Your task to perform on an android device: Search for usb-c to usb-a on costco.com, select the first entry, add it to the cart, then select checkout. Image 0: 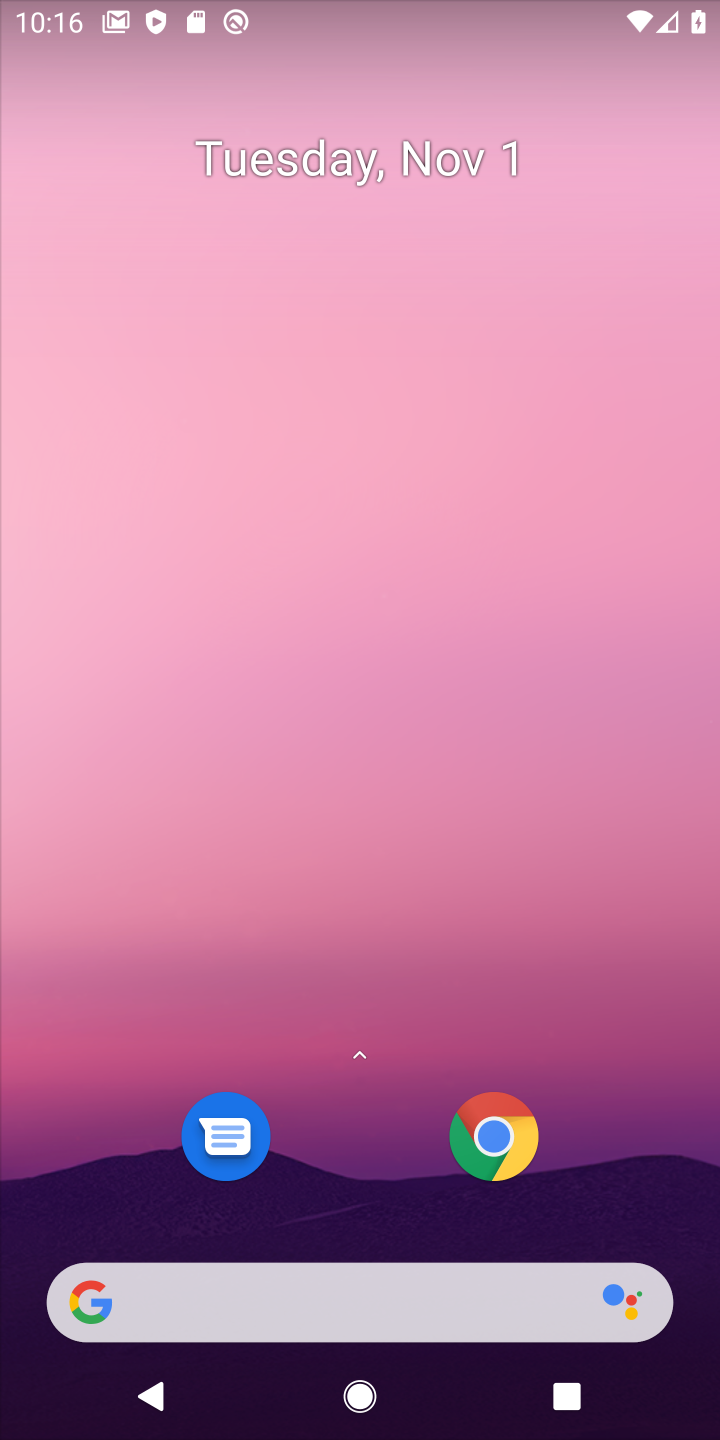
Step 0: drag from (502, 1375) to (255, 82)
Your task to perform on an android device: Search for usb-c to usb-a on costco.com, select the first entry, add it to the cart, then select checkout. Image 1: 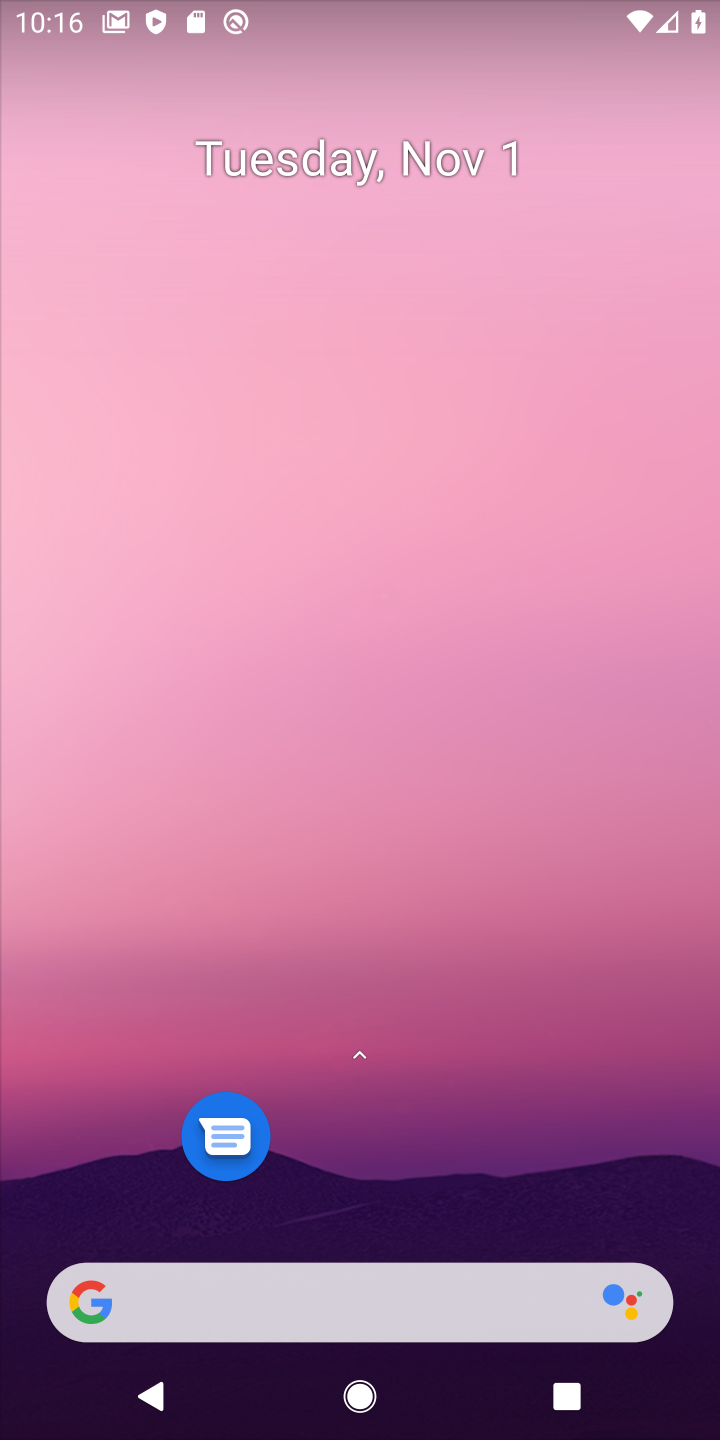
Step 1: drag from (482, 1362) to (547, 179)
Your task to perform on an android device: Search for usb-c to usb-a on costco.com, select the first entry, add it to the cart, then select checkout. Image 2: 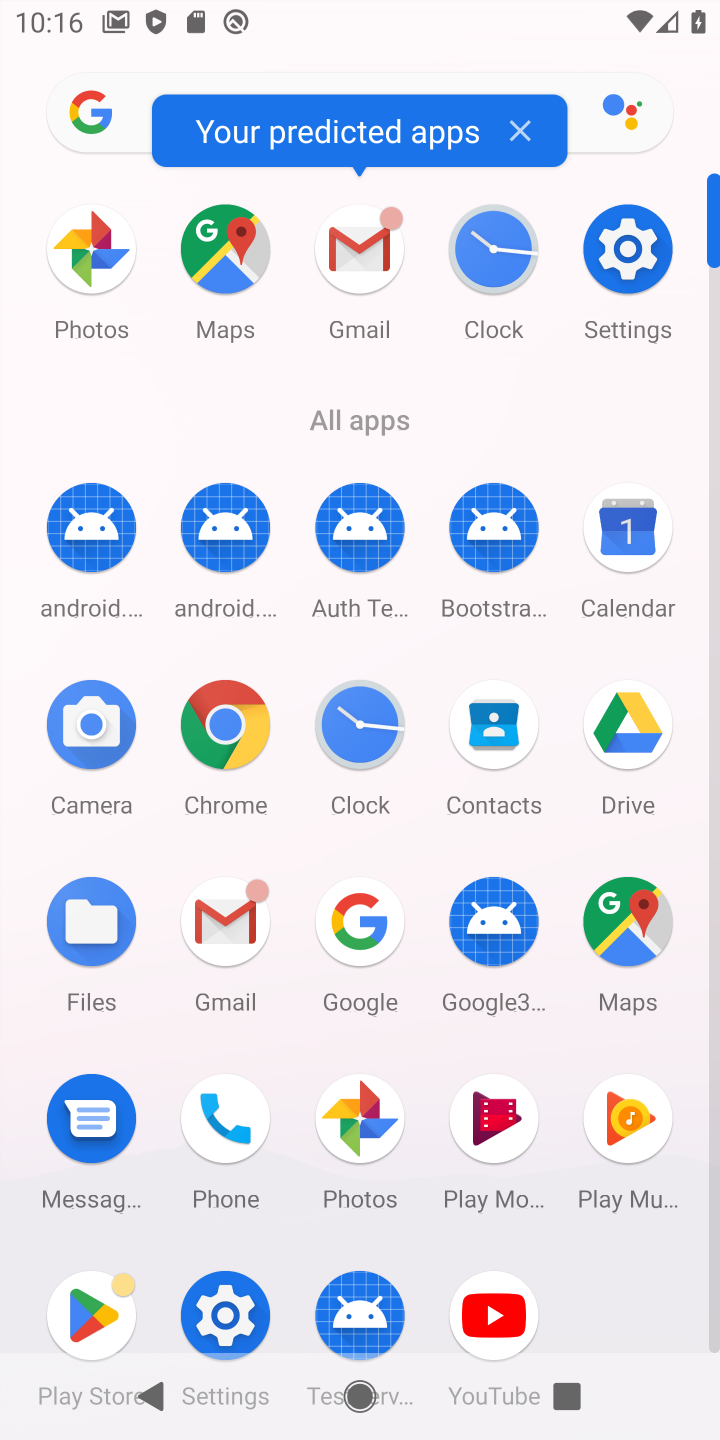
Step 2: click (239, 721)
Your task to perform on an android device: Search for usb-c to usb-a on costco.com, select the first entry, add it to the cart, then select checkout. Image 3: 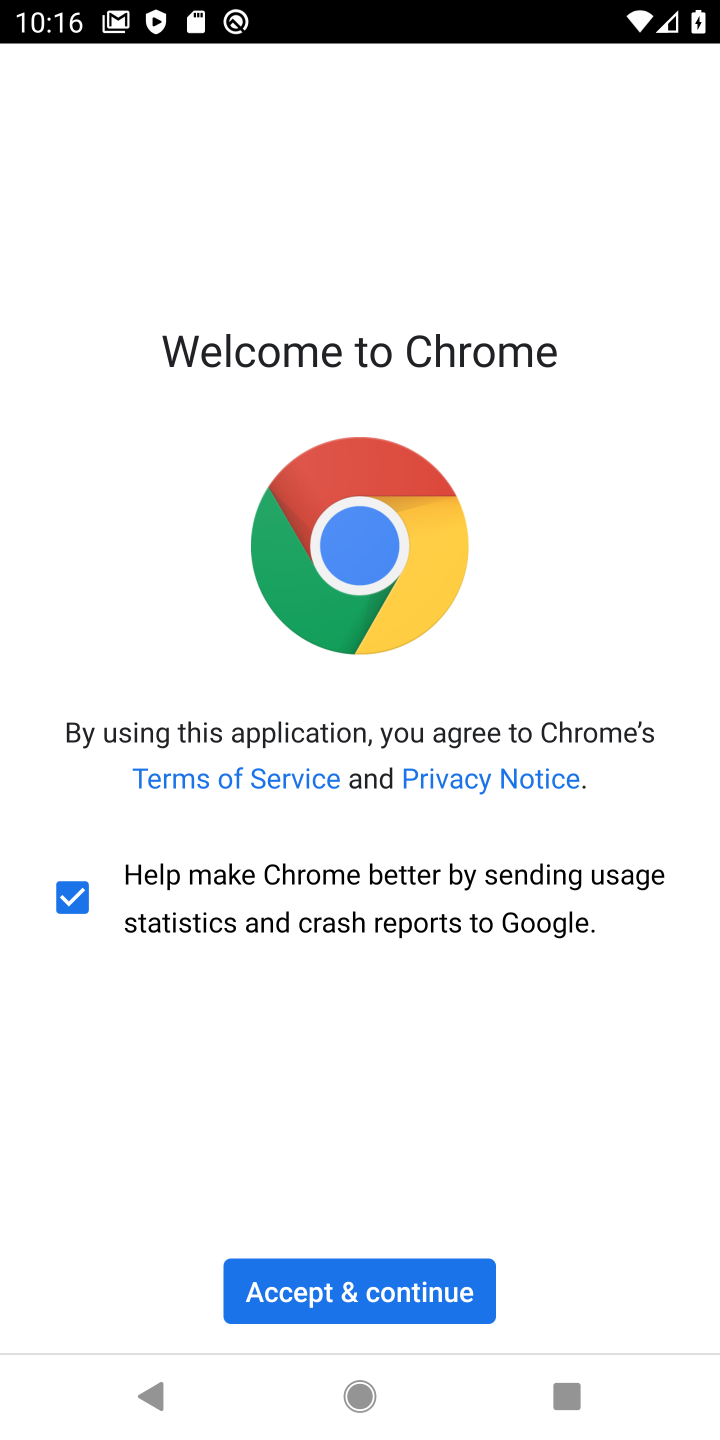
Step 3: click (397, 1296)
Your task to perform on an android device: Search for usb-c to usb-a on costco.com, select the first entry, add it to the cart, then select checkout. Image 4: 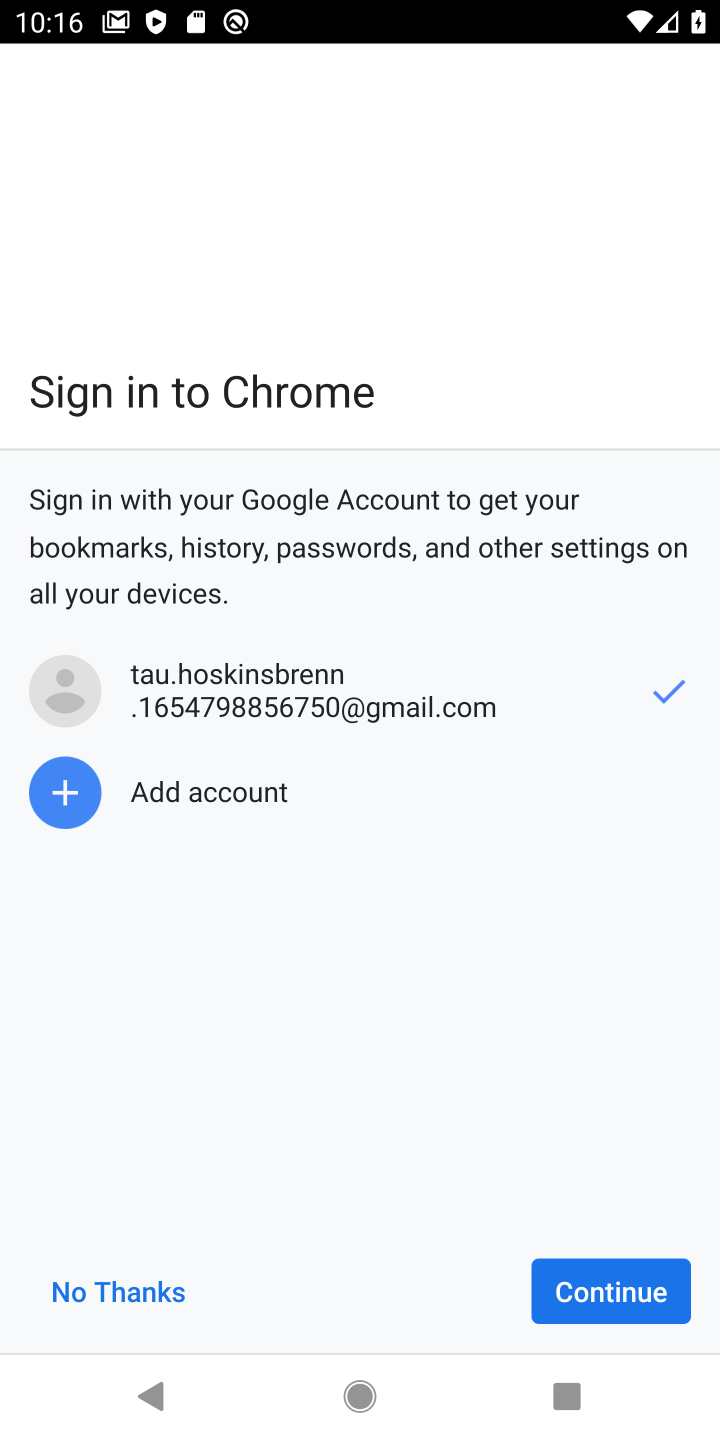
Step 4: click (598, 1298)
Your task to perform on an android device: Search for usb-c to usb-a on costco.com, select the first entry, add it to the cart, then select checkout. Image 5: 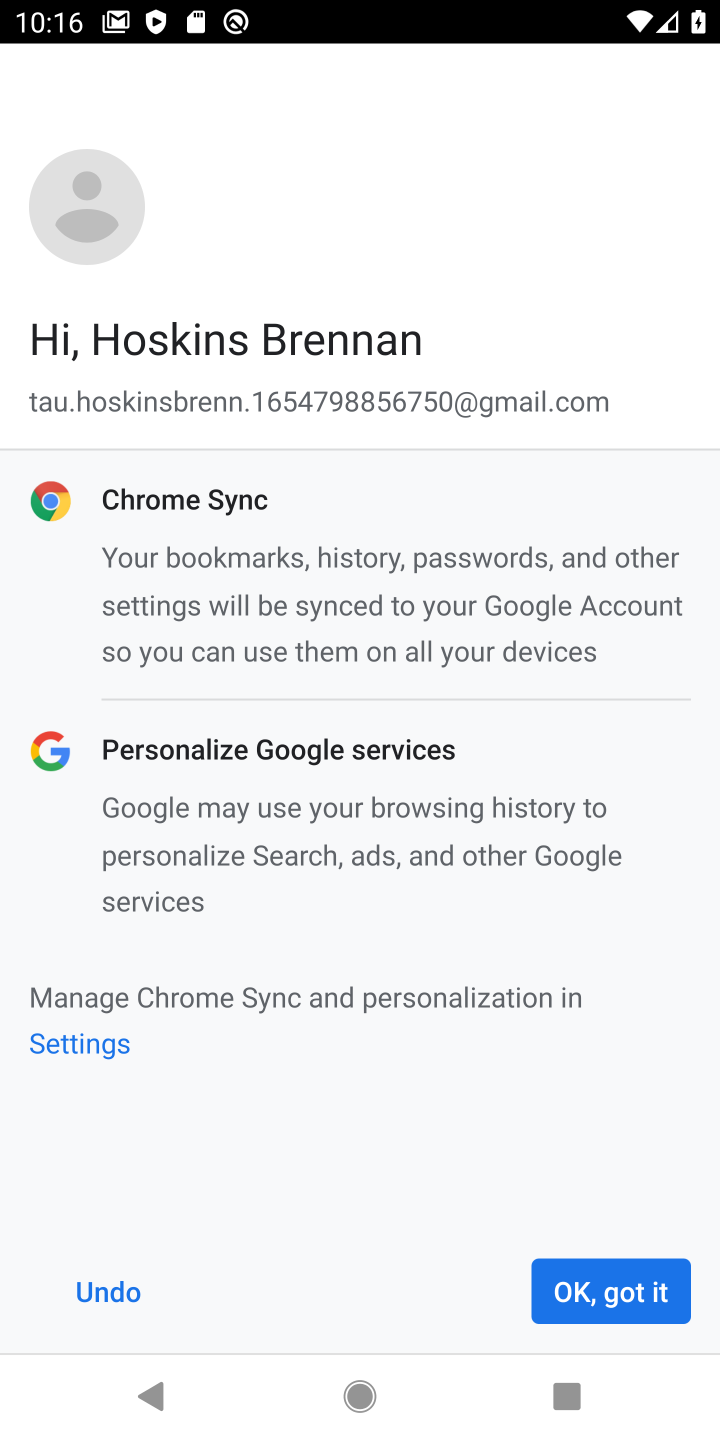
Step 5: click (603, 1295)
Your task to perform on an android device: Search for usb-c to usb-a on costco.com, select the first entry, add it to the cart, then select checkout. Image 6: 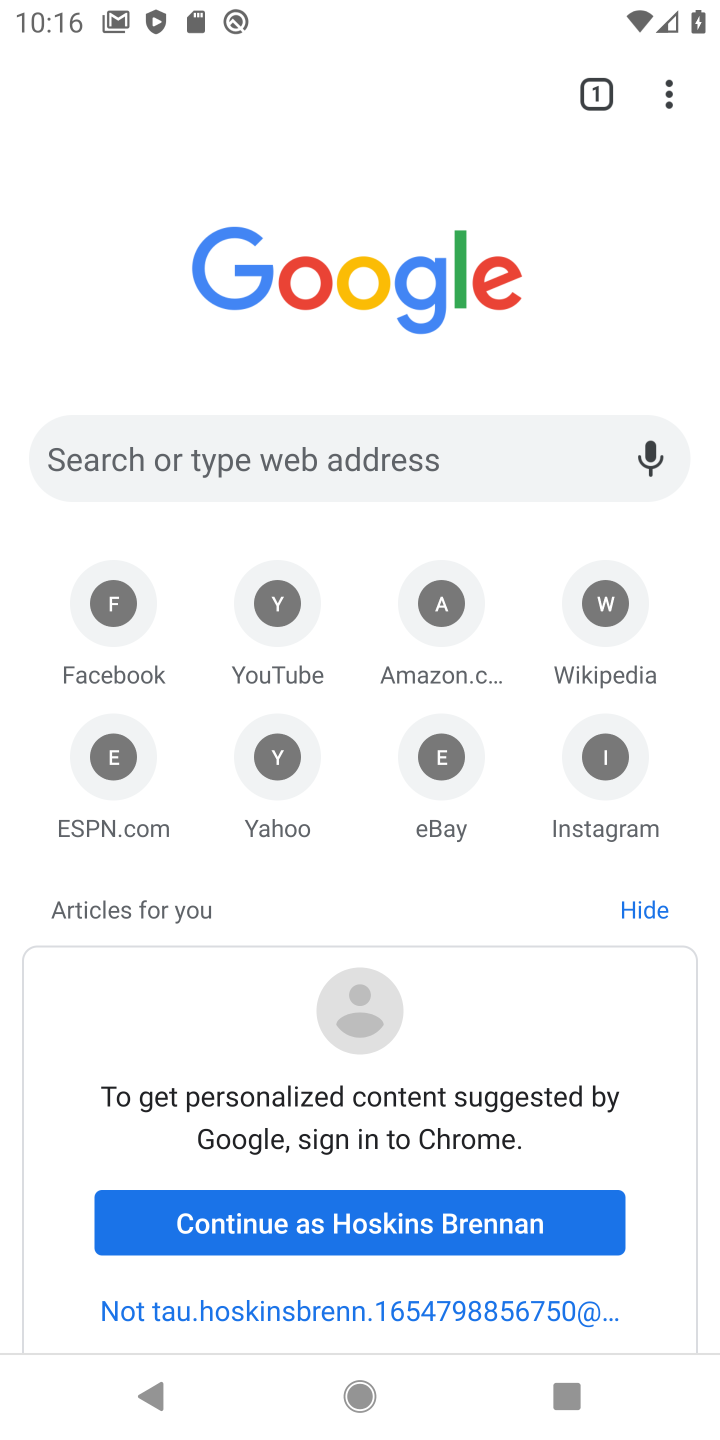
Step 6: click (265, 103)
Your task to perform on an android device: Search for usb-c to usb-a on costco.com, select the first entry, add it to the cart, then select checkout. Image 7: 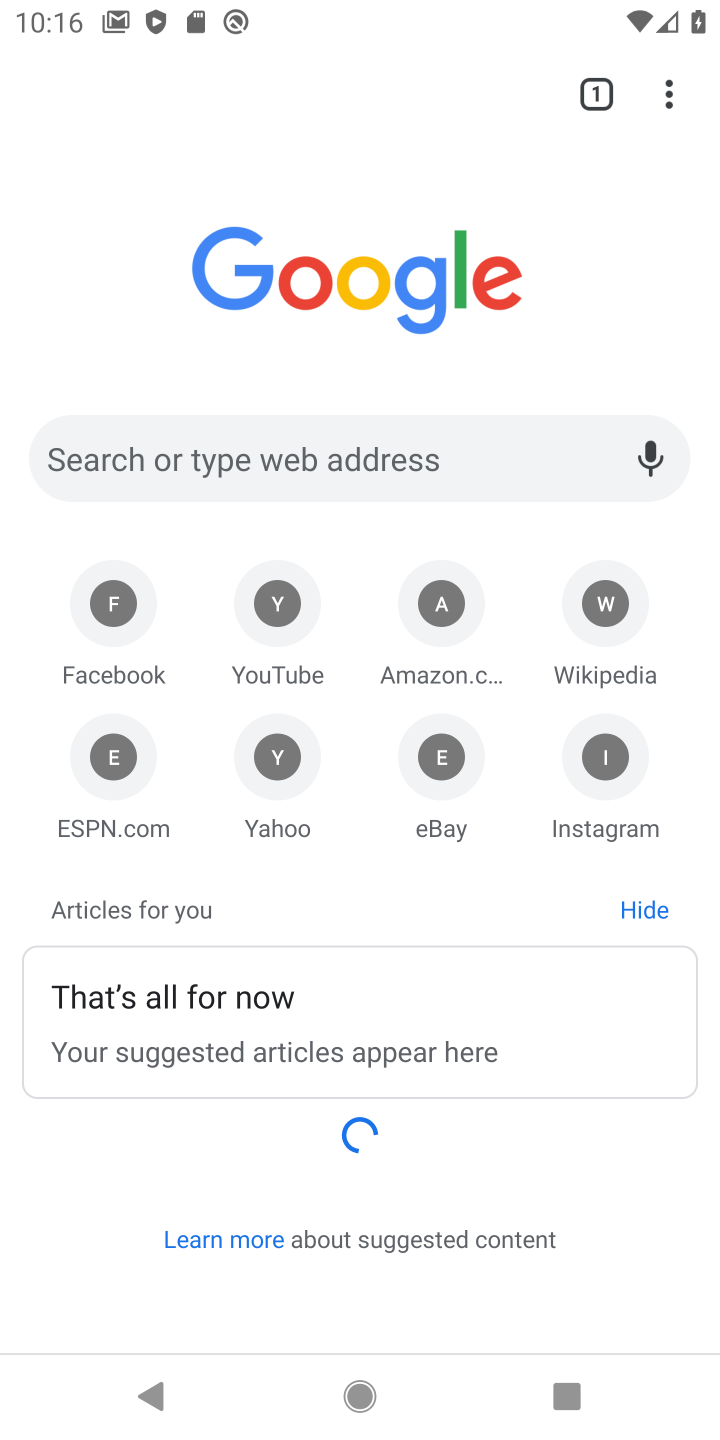
Step 7: click (337, 454)
Your task to perform on an android device: Search for usb-c to usb-a on costco.com, select the first entry, add it to the cart, then select checkout. Image 8: 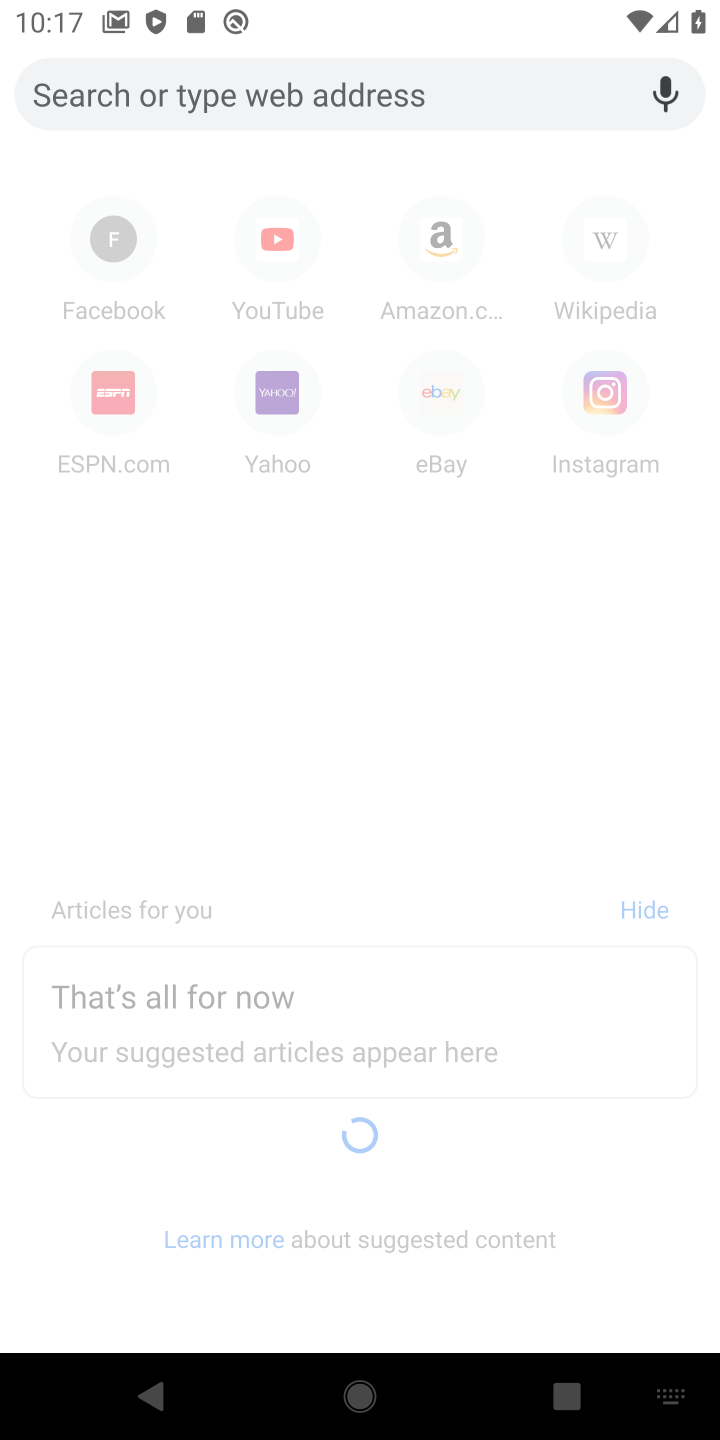
Step 8: click (81, 74)
Your task to perform on an android device: Search for usb-c to usb-a on costco.com, select the first entry, add it to the cart, then select checkout. Image 9: 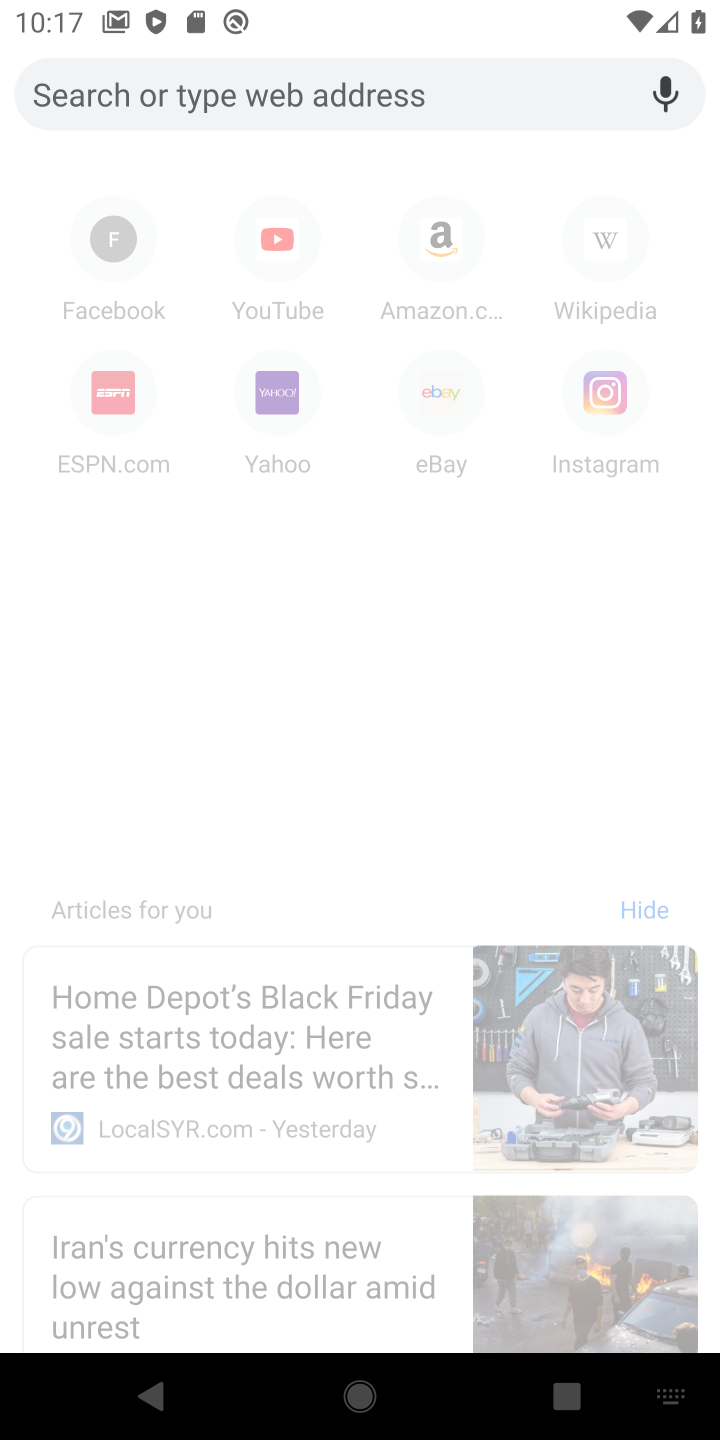
Step 9: type "costco.com"
Your task to perform on an android device: Search for usb-c to usb-a on costco.com, select the first entry, add it to the cart, then select checkout. Image 10: 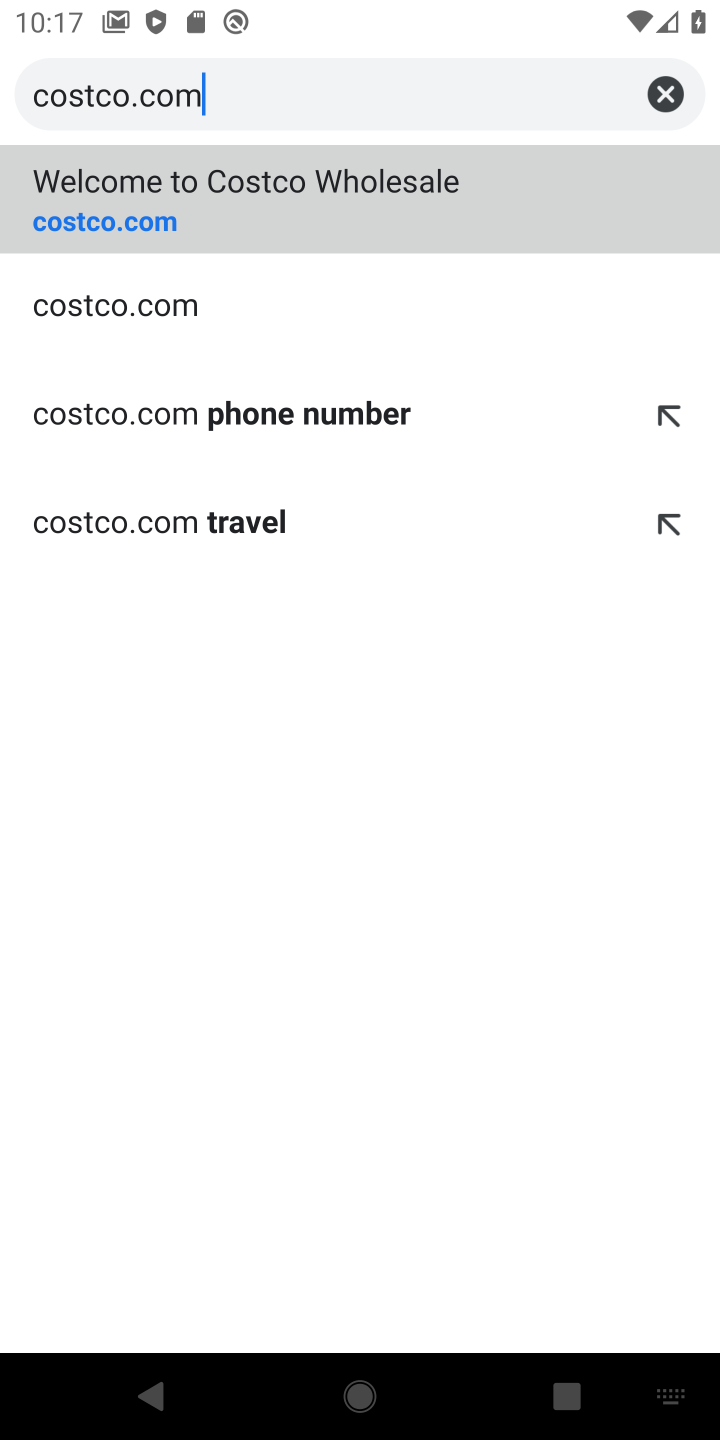
Step 10: click (102, 213)
Your task to perform on an android device: Search for usb-c to usb-a on costco.com, select the first entry, add it to the cart, then select checkout. Image 11: 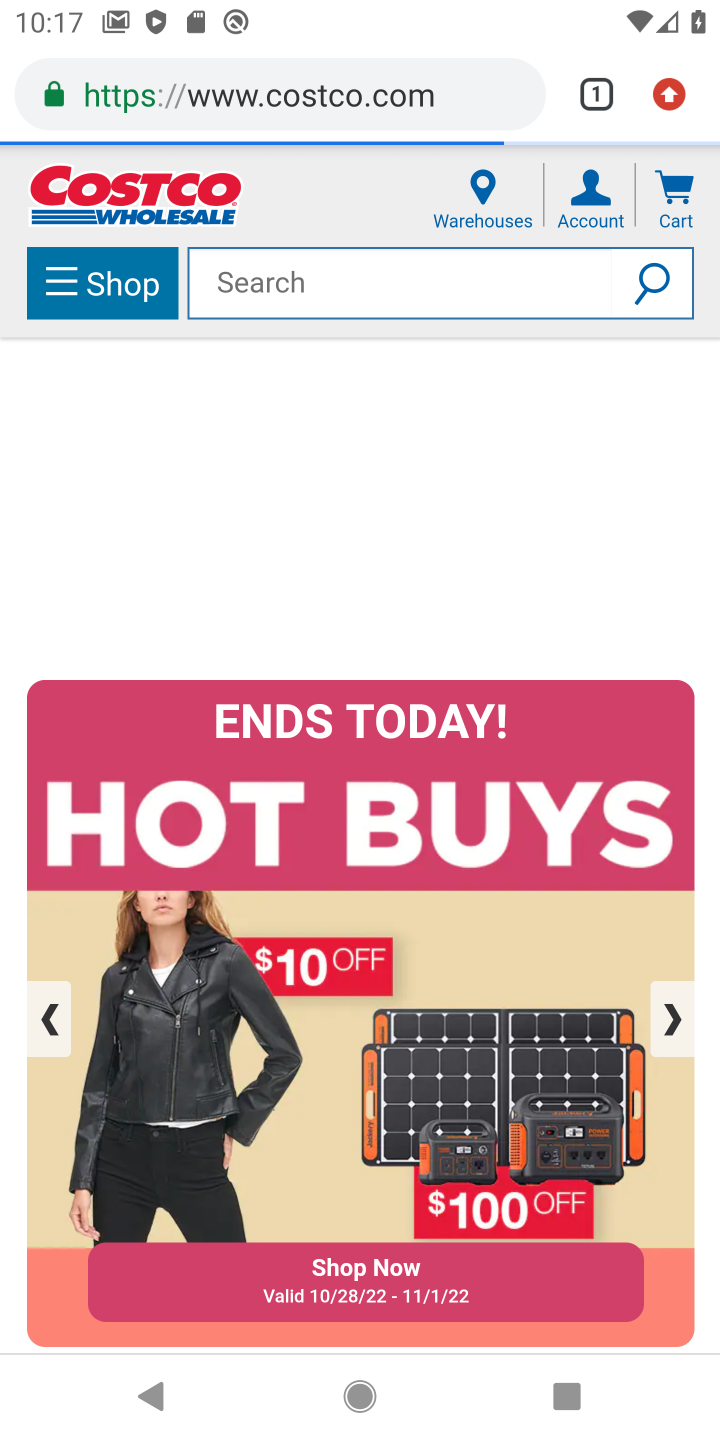
Step 11: click (332, 293)
Your task to perform on an android device: Search for usb-c to usb-a on costco.com, select the first entry, add it to the cart, then select checkout. Image 12: 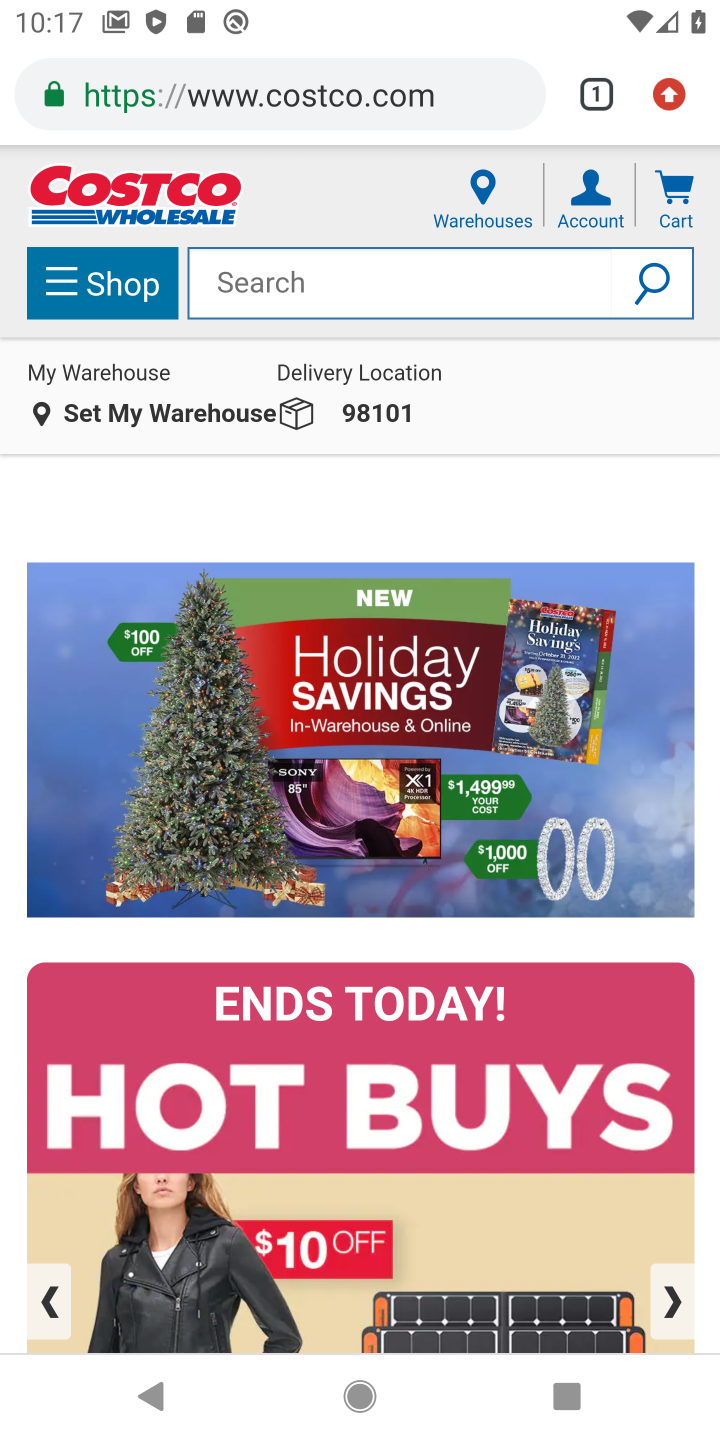
Step 12: click (262, 280)
Your task to perform on an android device: Search for usb-c to usb-a on costco.com, select the first entry, add it to the cart, then select checkout. Image 13: 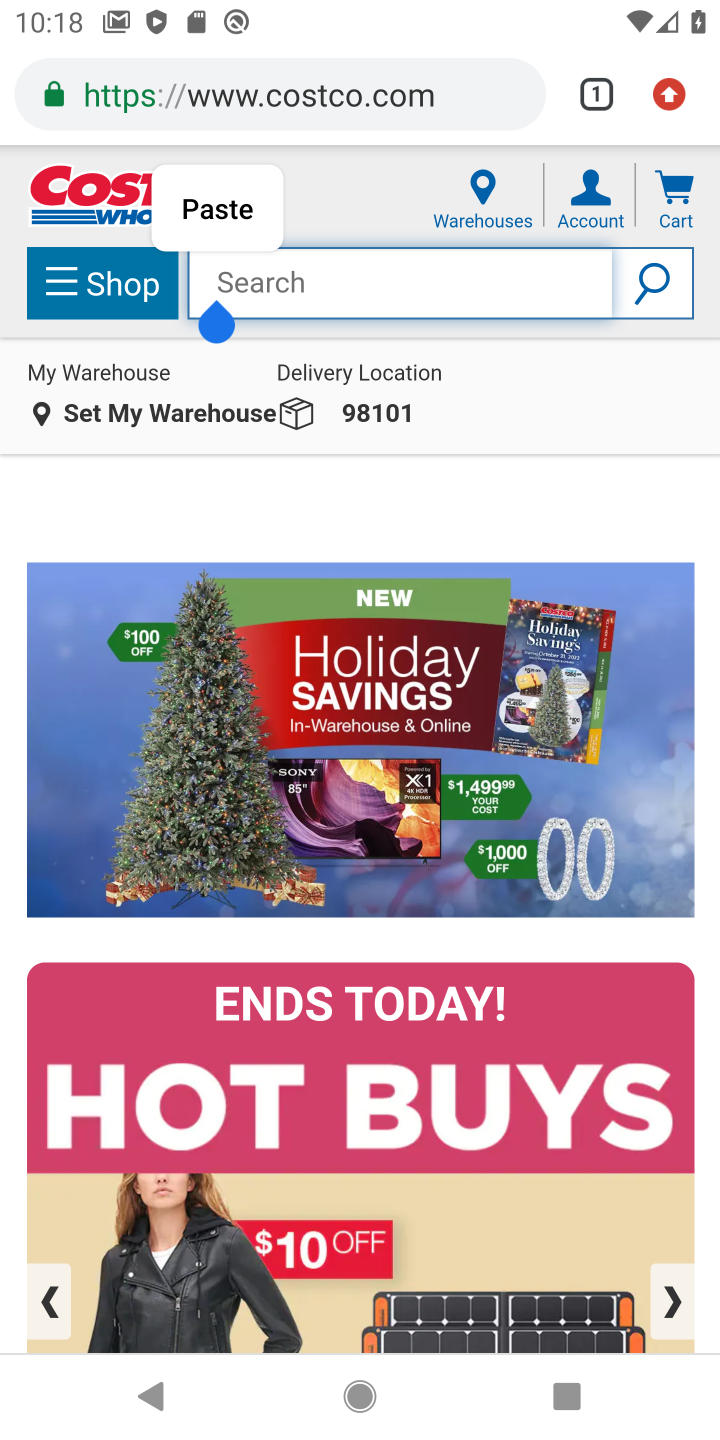
Step 13: type " usb-c to usb-a"
Your task to perform on an android device: Search for usb-c to usb-a on costco.com, select the first entry, add it to the cart, then select checkout. Image 14: 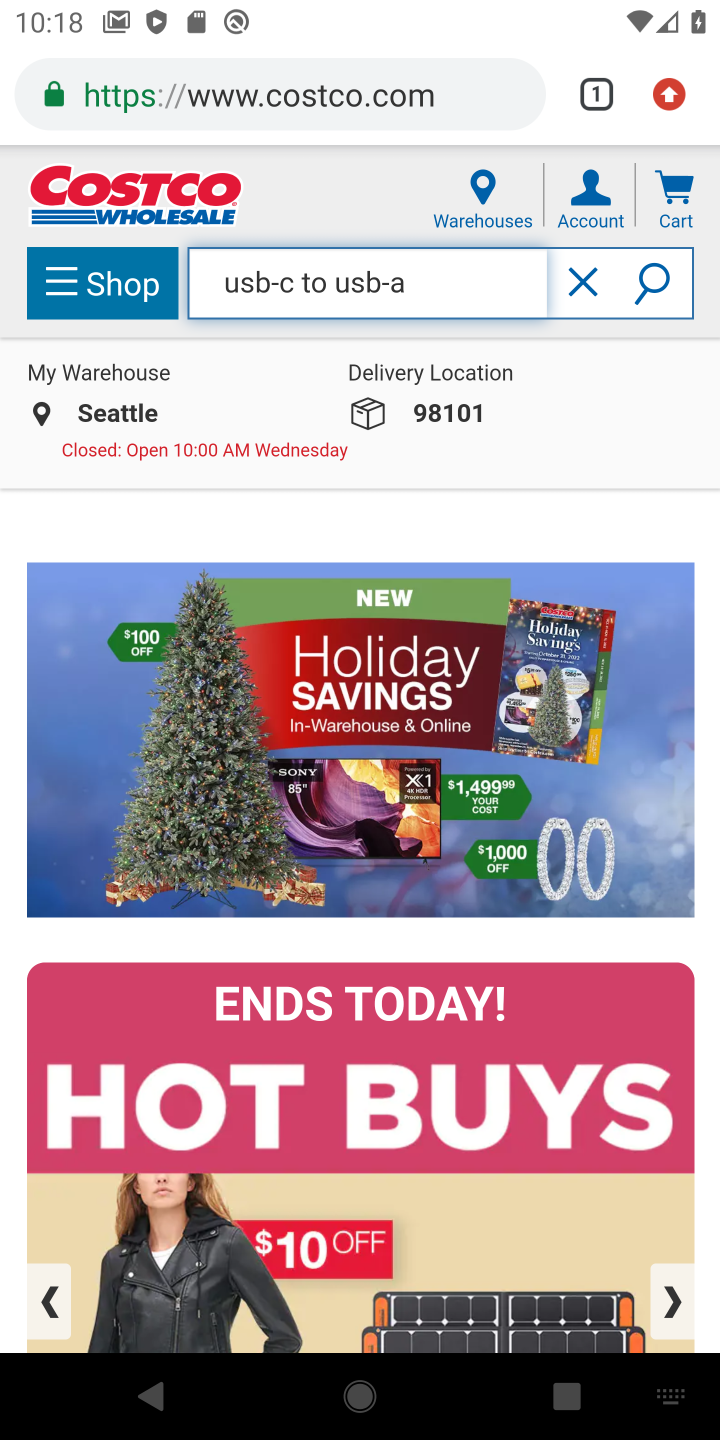
Step 14: click (639, 288)
Your task to perform on an android device: Search for usb-c to usb-a on costco.com, select the first entry, add it to the cart, then select checkout. Image 15: 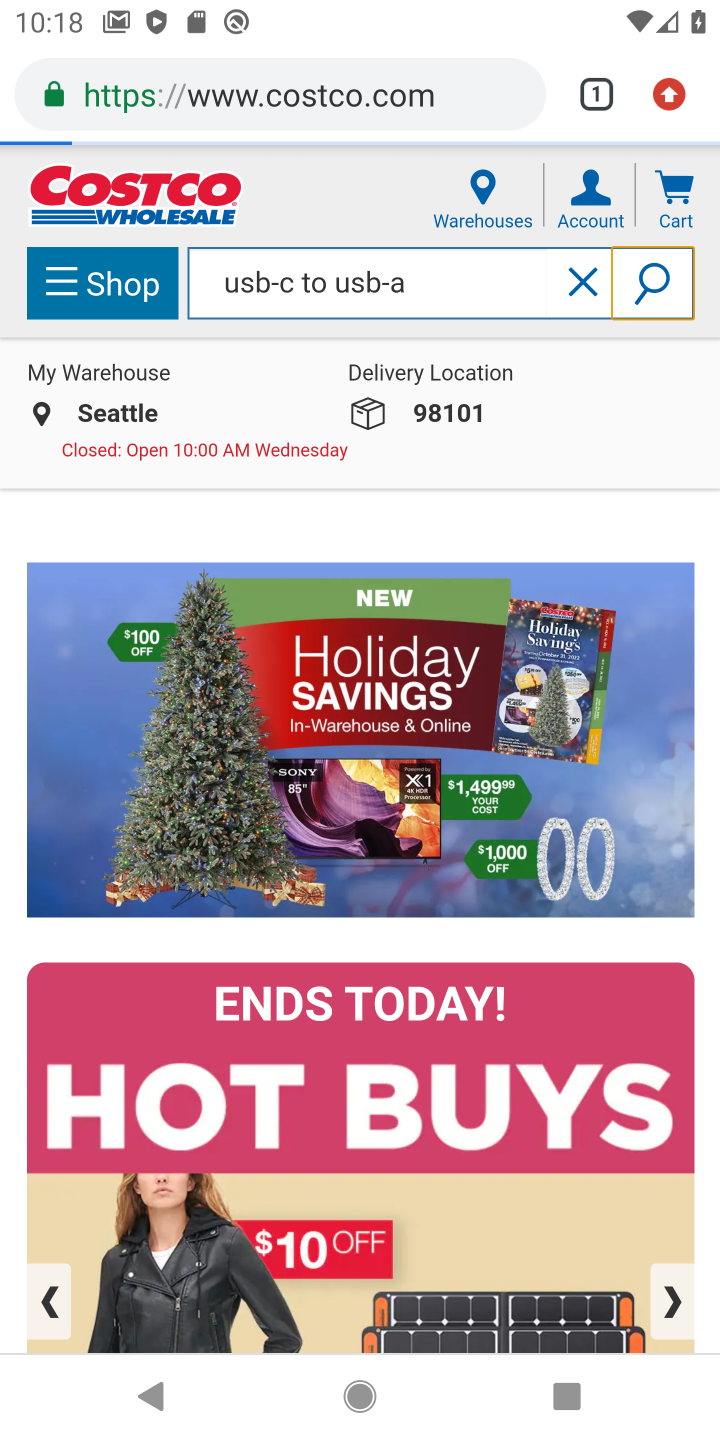
Step 15: click (658, 273)
Your task to perform on an android device: Search for usb-c to usb-a on costco.com, select the first entry, add it to the cart, then select checkout. Image 16: 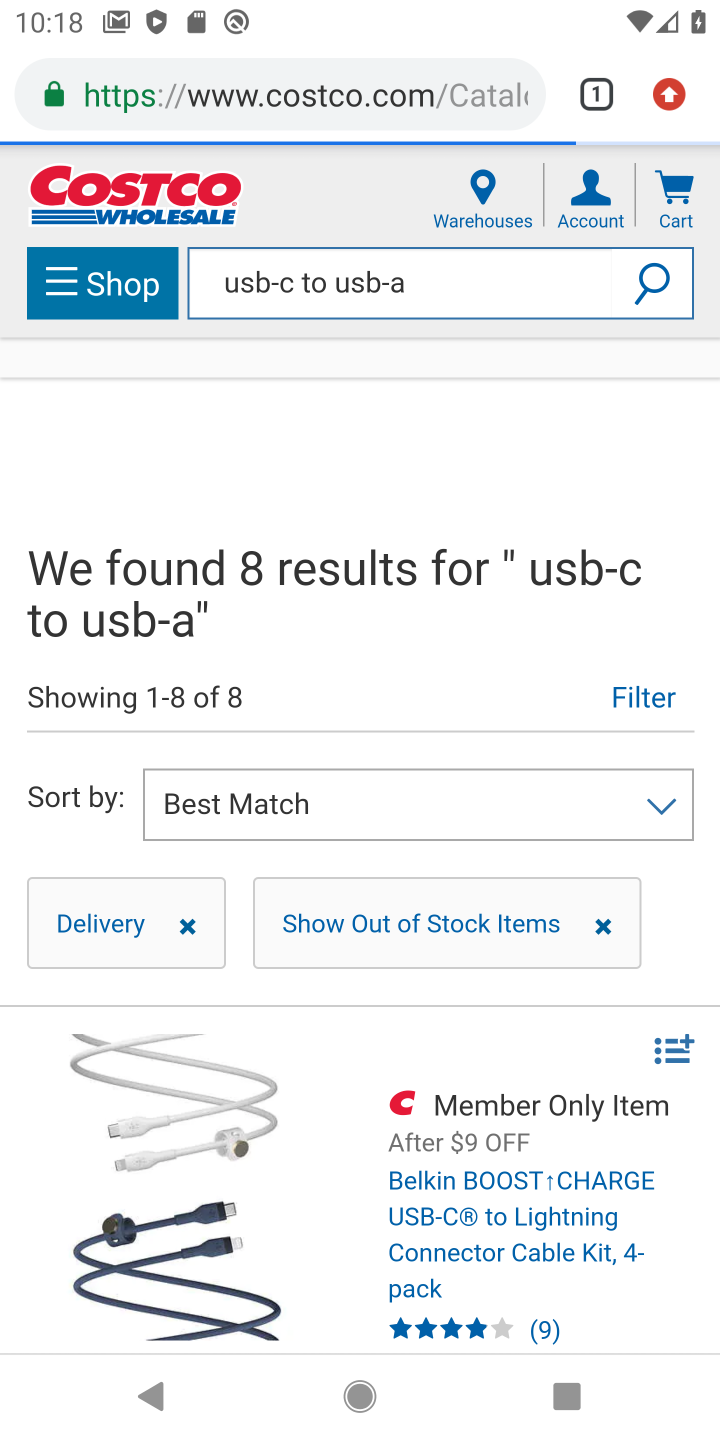
Step 16: drag from (408, 798) to (443, 450)
Your task to perform on an android device: Search for usb-c to usb-a on costco.com, select the first entry, add it to the cart, then select checkout. Image 17: 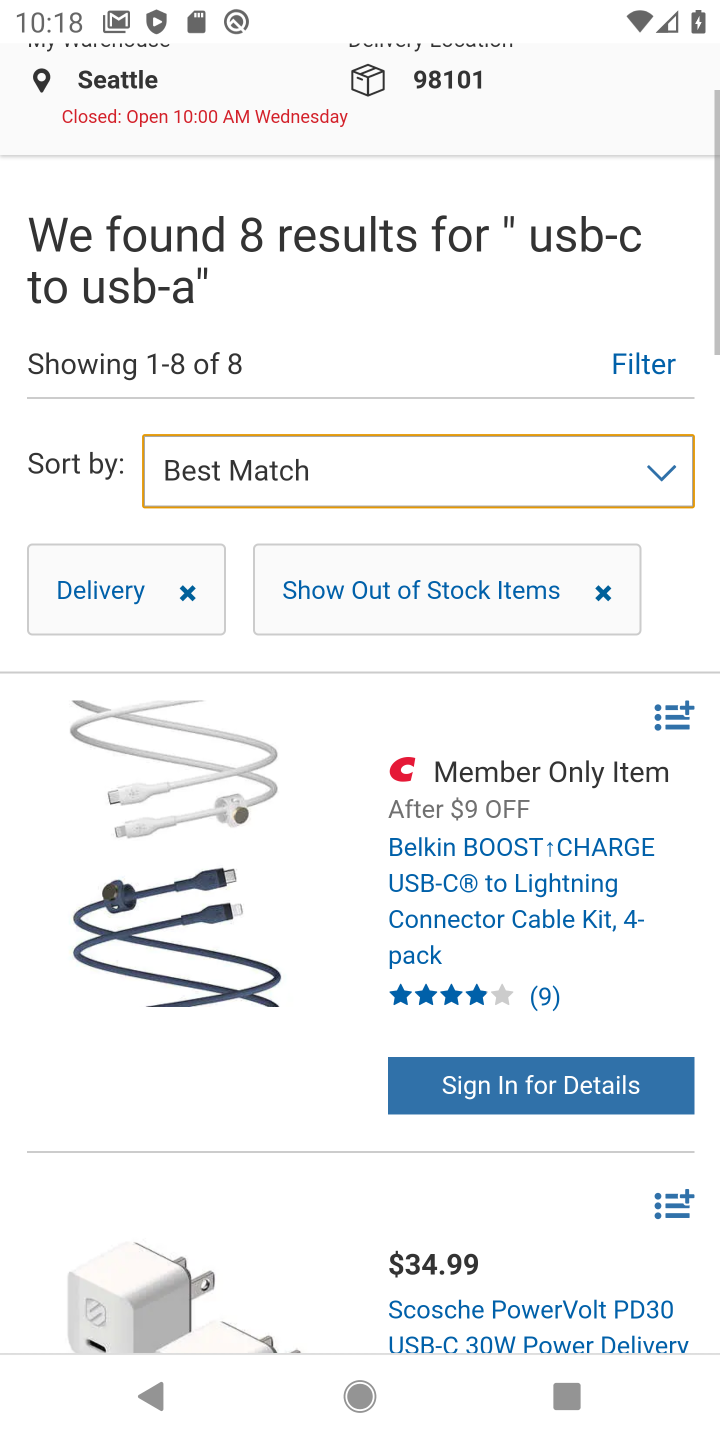
Step 17: drag from (375, 667) to (375, 312)
Your task to perform on an android device: Search for usb-c to usb-a on costco.com, select the first entry, add it to the cart, then select checkout. Image 18: 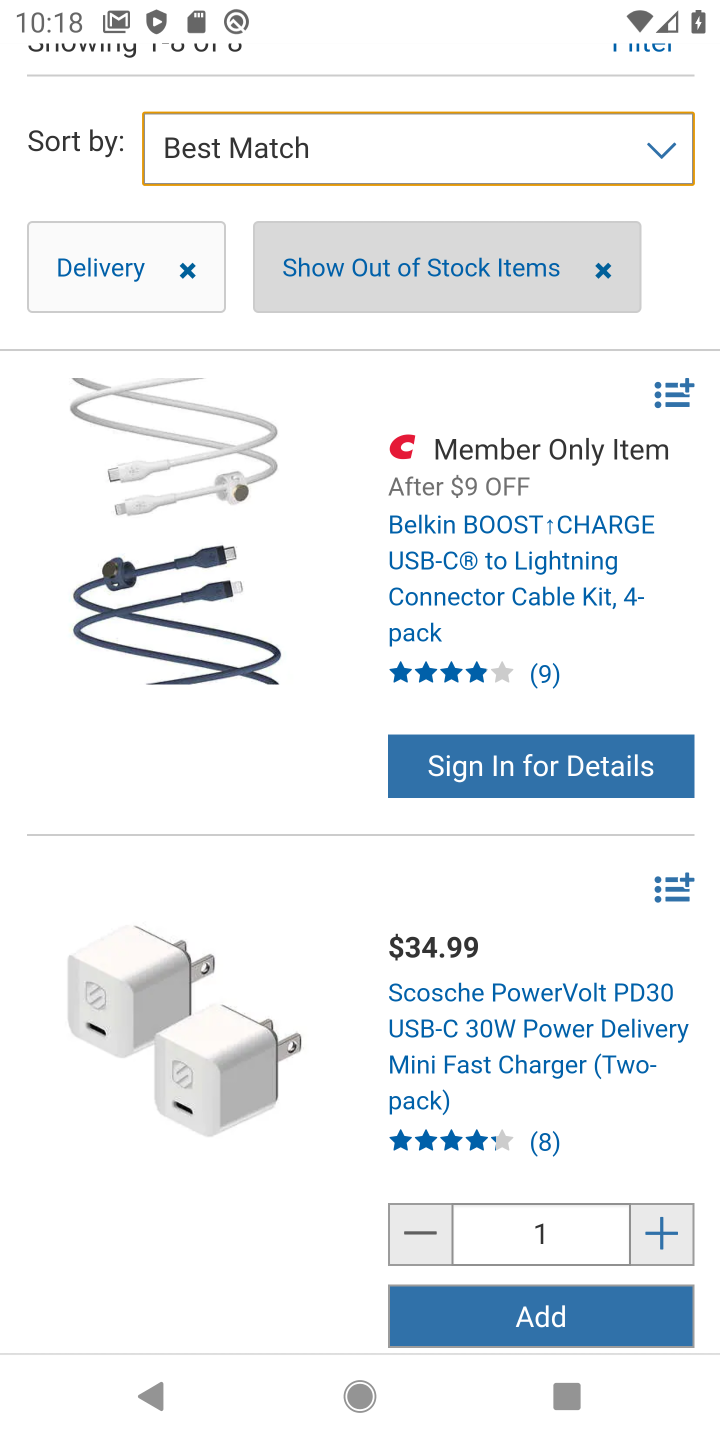
Step 18: click (219, 797)
Your task to perform on an android device: Search for usb-c to usb-a on costco.com, select the first entry, add it to the cart, then select checkout. Image 19: 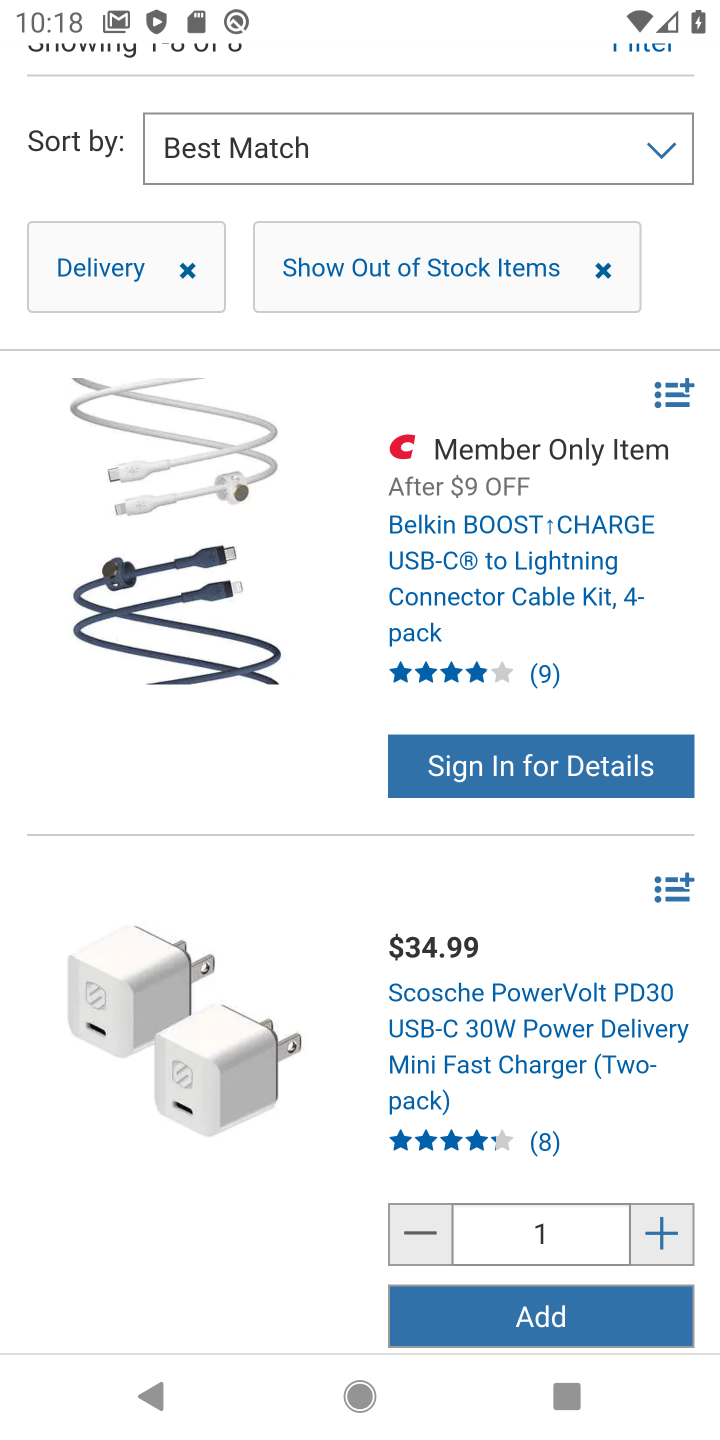
Step 19: click (363, 526)
Your task to perform on an android device: Search for usb-c to usb-a on costco.com, select the first entry, add it to the cart, then select checkout. Image 20: 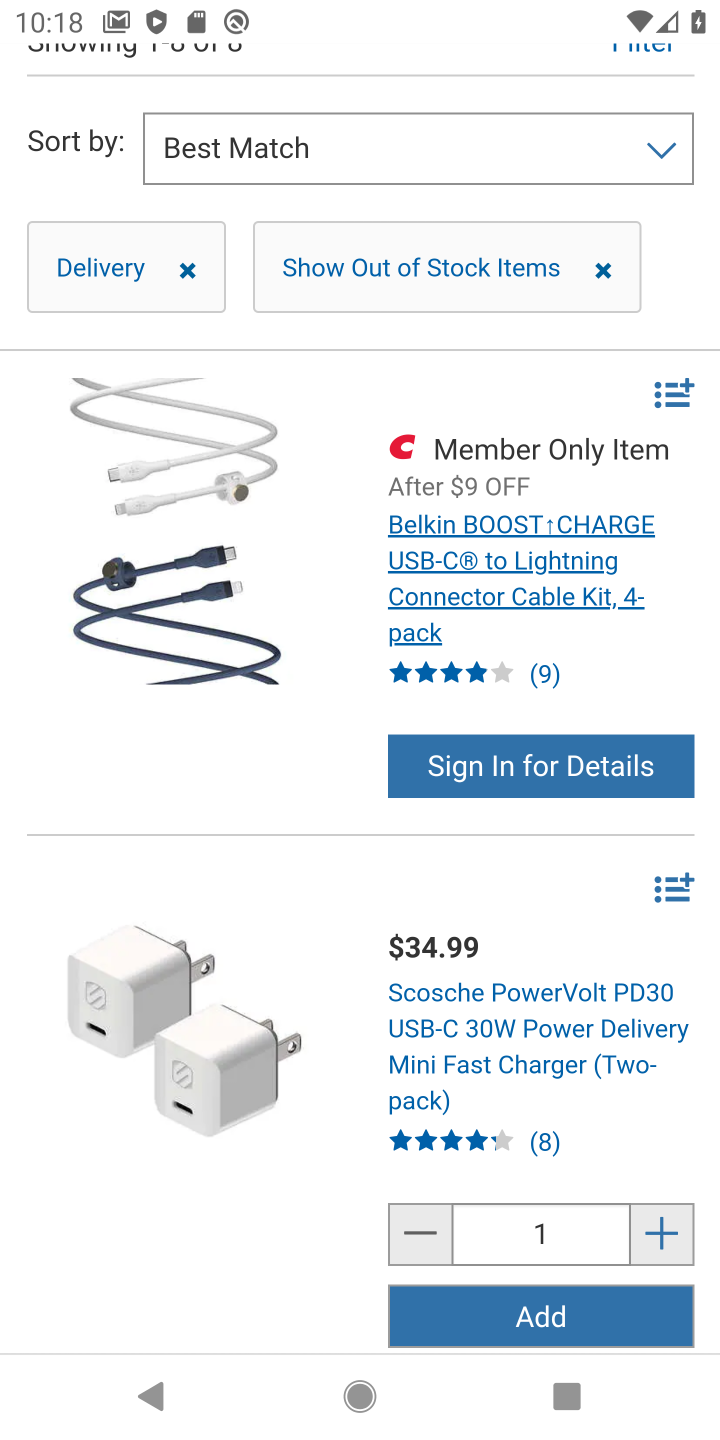
Step 20: click (412, 528)
Your task to perform on an android device: Search for usb-c to usb-a on costco.com, select the first entry, add it to the cart, then select checkout. Image 21: 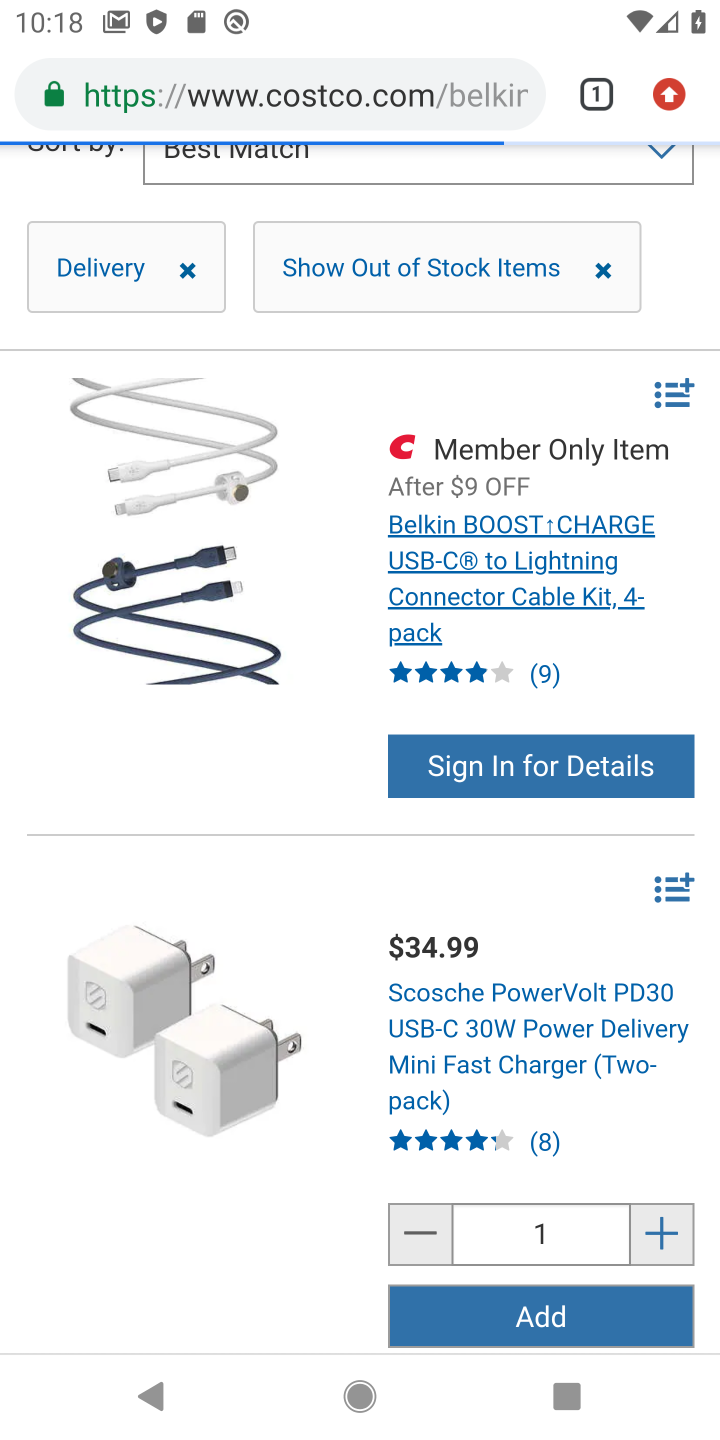
Step 21: click (457, 474)
Your task to perform on an android device: Search for usb-c to usb-a on costco.com, select the first entry, add it to the cart, then select checkout. Image 22: 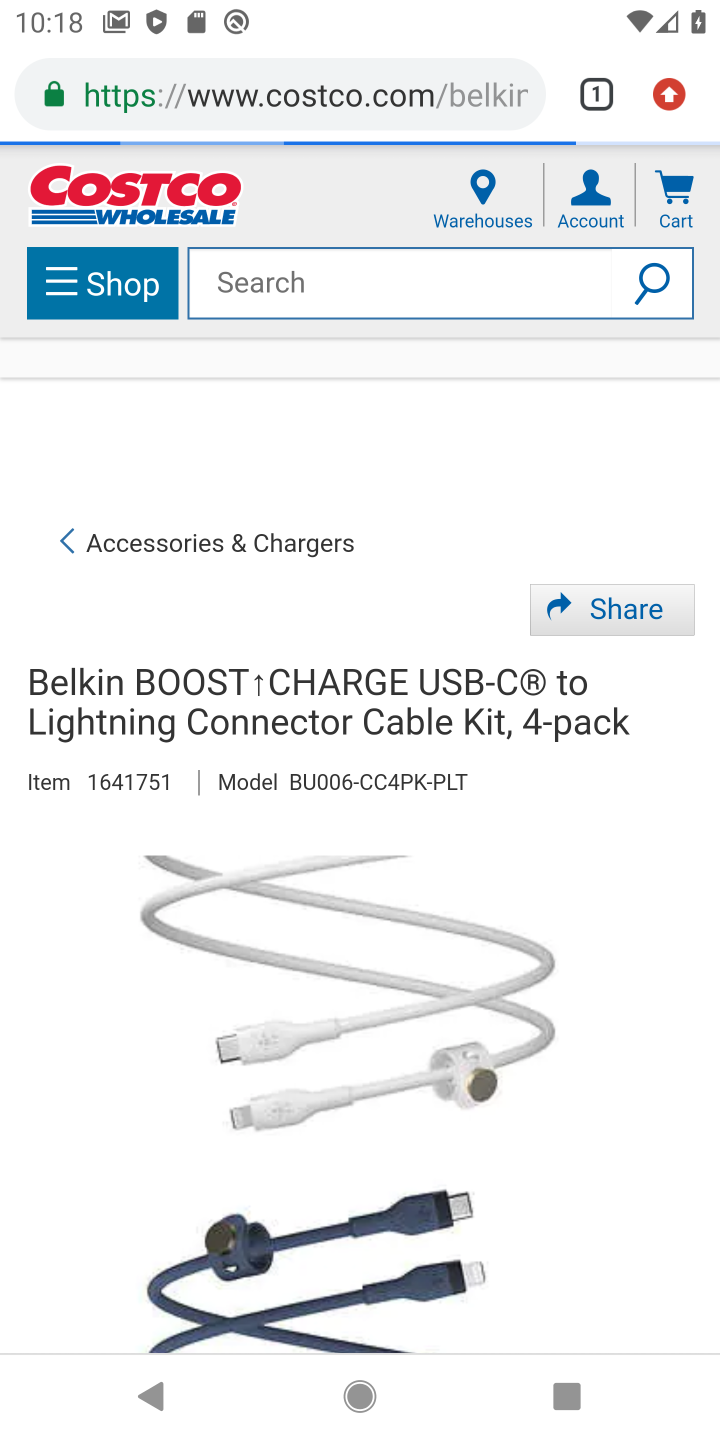
Step 22: task complete